Your task to perform on an android device: delete a single message in the gmail app Image 0: 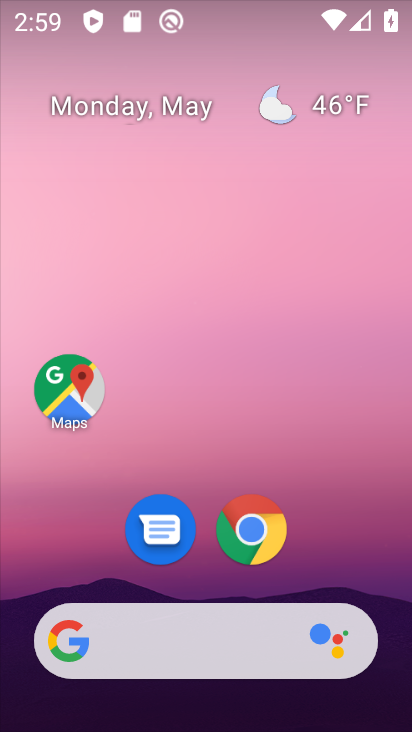
Step 0: drag from (390, 567) to (349, 243)
Your task to perform on an android device: delete a single message in the gmail app Image 1: 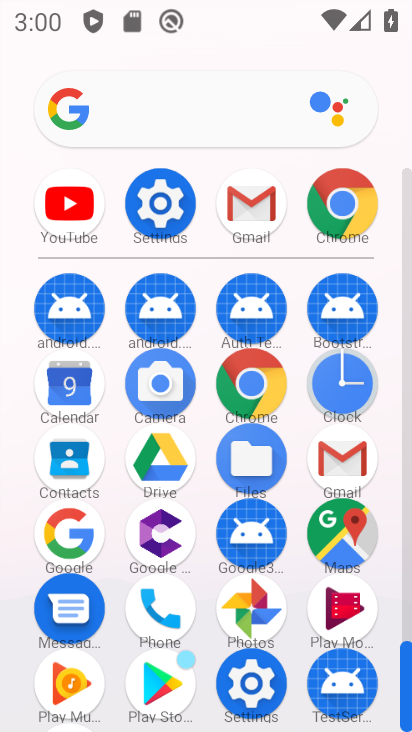
Step 1: click (344, 460)
Your task to perform on an android device: delete a single message in the gmail app Image 2: 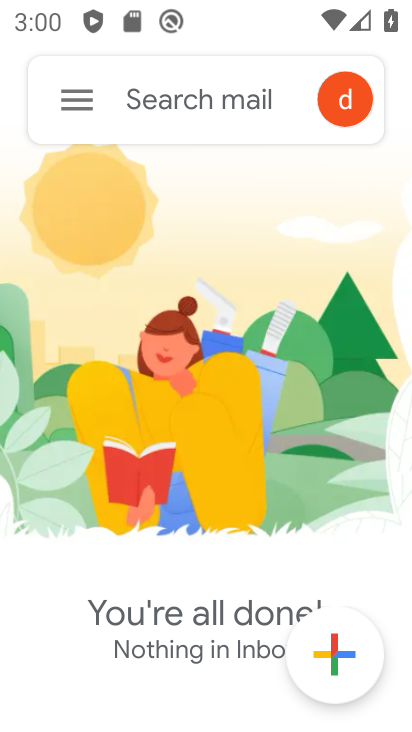
Step 2: click (84, 107)
Your task to perform on an android device: delete a single message in the gmail app Image 3: 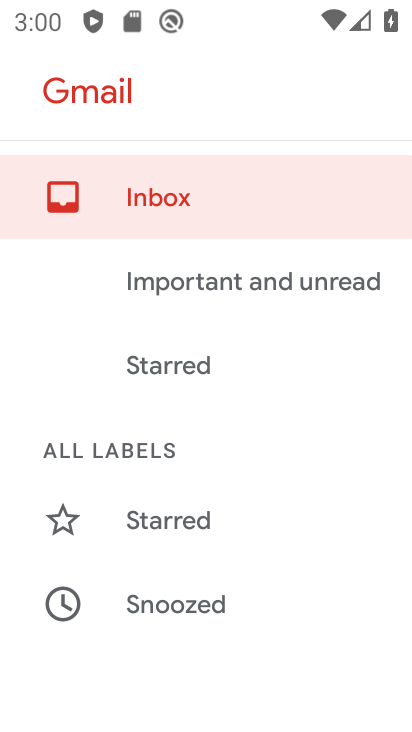
Step 3: drag from (231, 627) to (233, 335)
Your task to perform on an android device: delete a single message in the gmail app Image 4: 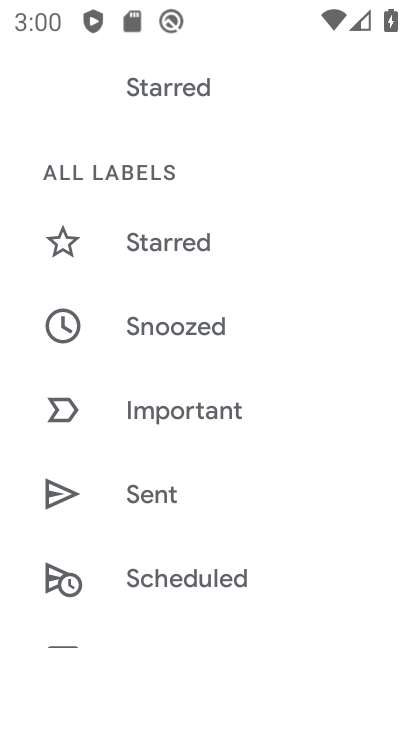
Step 4: drag from (271, 621) to (266, 363)
Your task to perform on an android device: delete a single message in the gmail app Image 5: 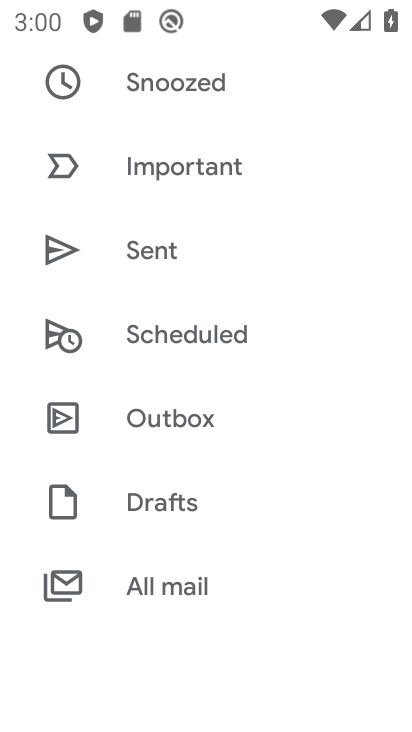
Step 5: drag from (241, 288) to (248, 531)
Your task to perform on an android device: delete a single message in the gmail app Image 6: 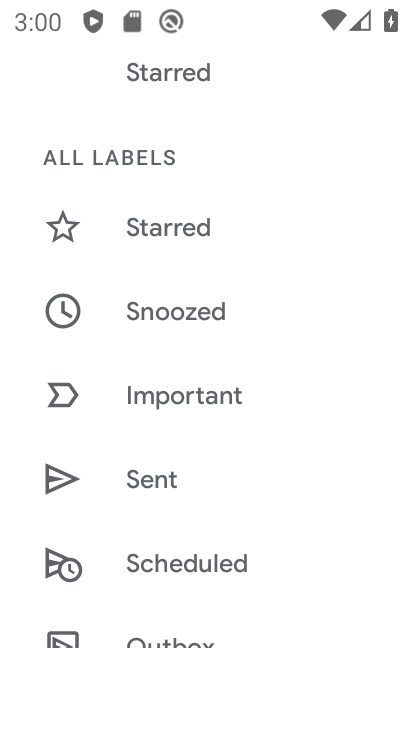
Step 6: drag from (225, 337) to (221, 552)
Your task to perform on an android device: delete a single message in the gmail app Image 7: 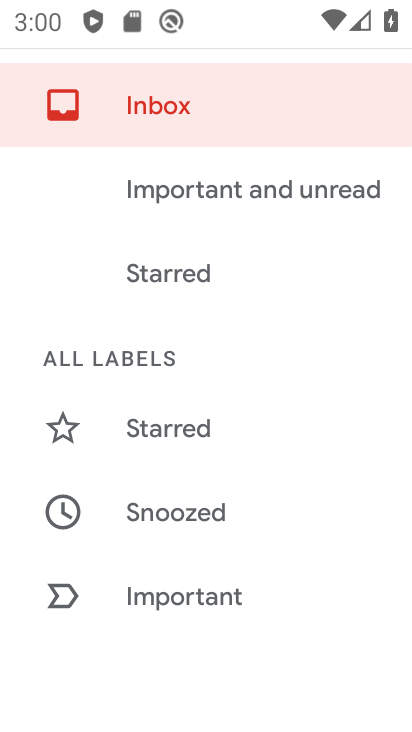
Step 7: drag from (216, 558) to (203, 262)
Your task to perform on an android device: delete a single message in the gmail app Image 8: 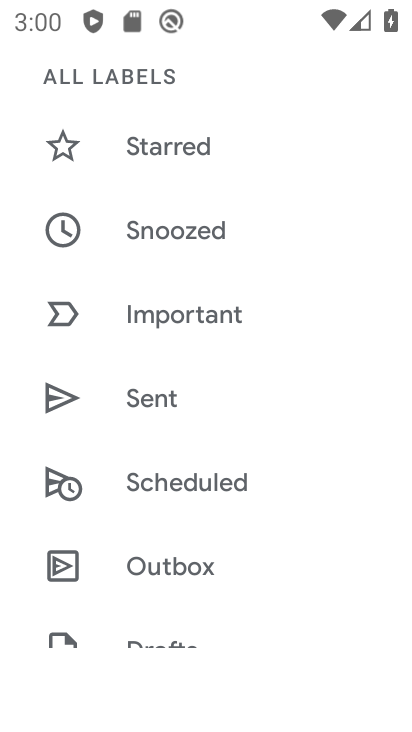
Step 8: drag from (217, 569) to (185, 254)
Your task to perform on an android device: delete a single message in the gmail app Image 9: 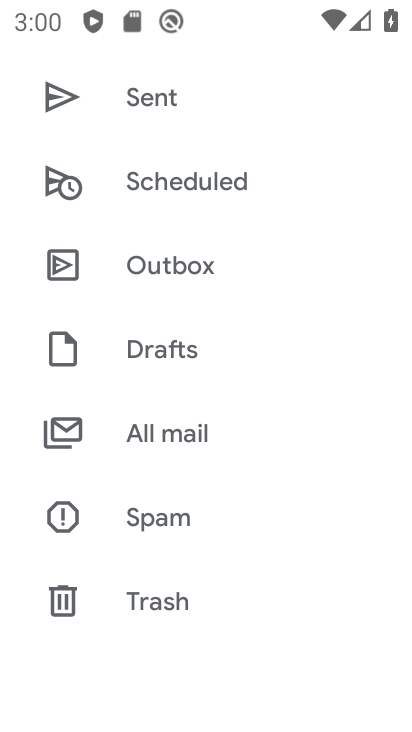
Step 9: drag from (215, 572) to (206, 312)
Your task to perform on an android device: delete a single message in the gmail app Image 10: 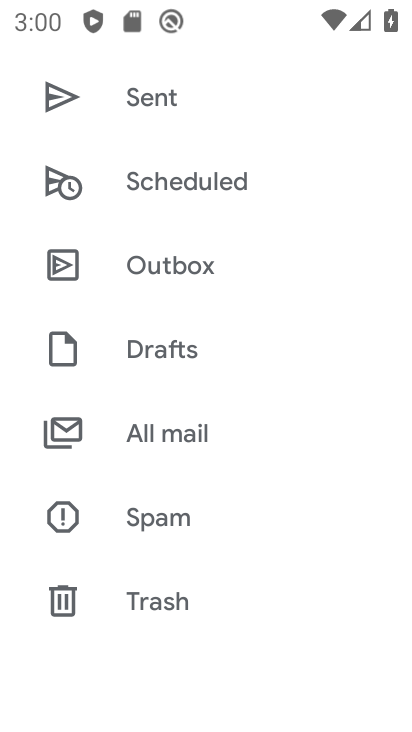
Step 10: click (204, 436)
Your task to perform on an android device: delete a single message in the gmail app Image 11: 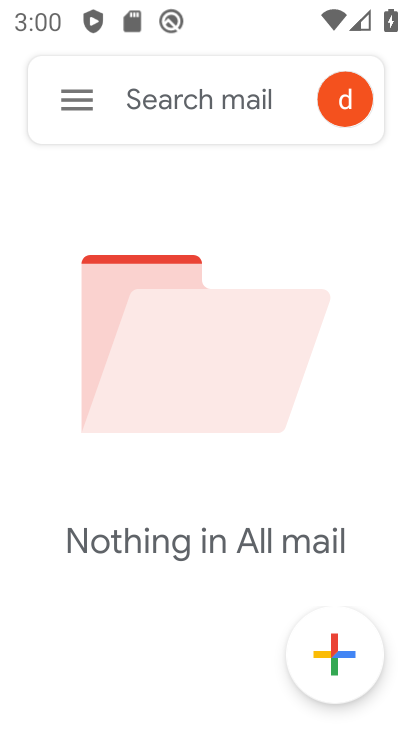
Step 11: task complete